Your task to perform on an android device: all mails in gmail Image 0: 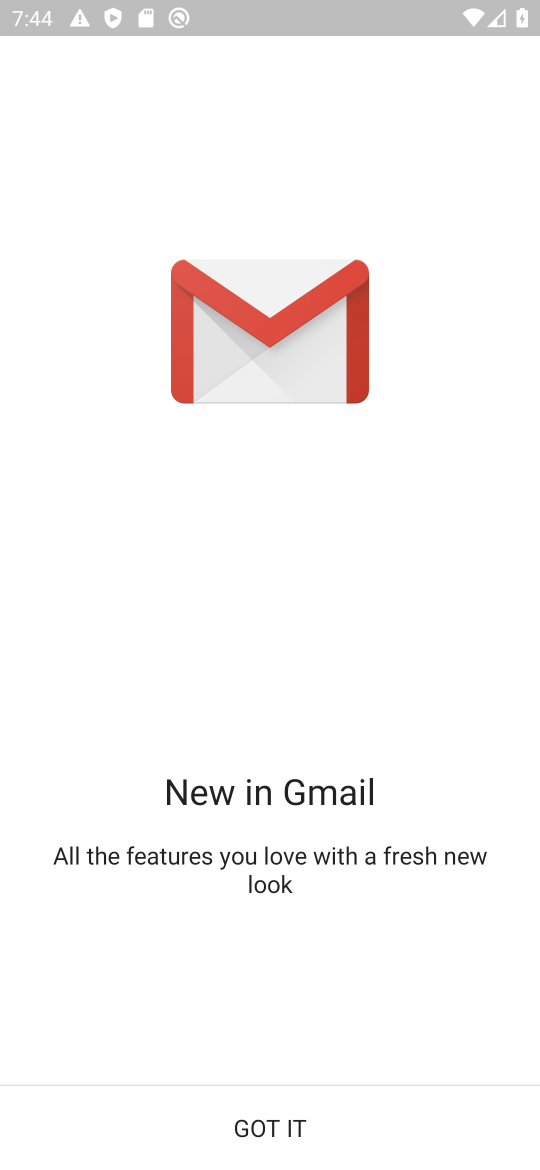
Step 0: click (279, 1101)
Your task to perform on an android device: all mails in gmail Image 1: 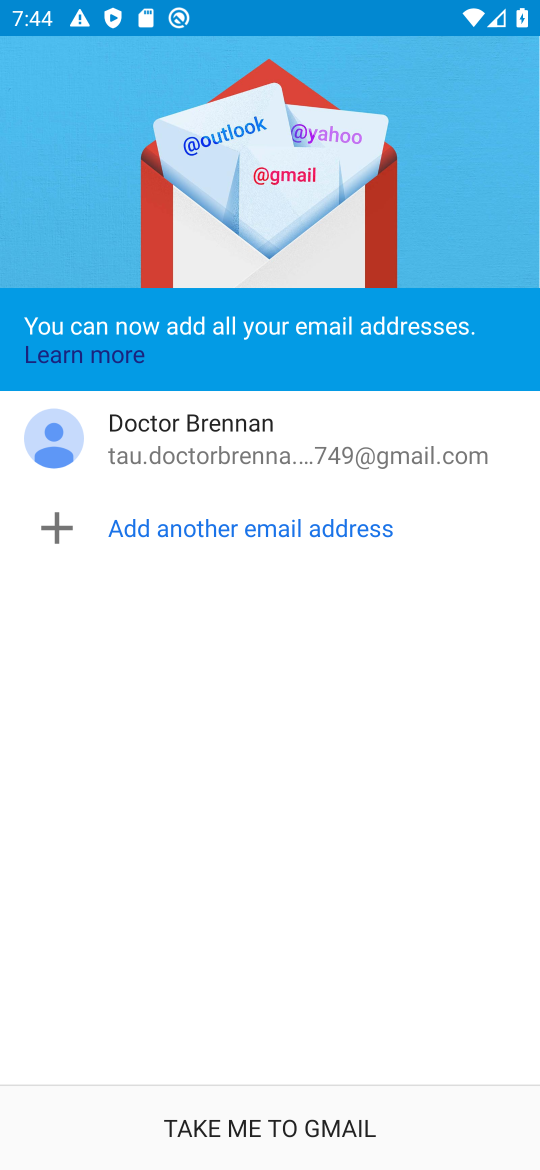
Step 1: click (219, 1131)
Your task to perform on an android device: all mails in gmail Image 2: 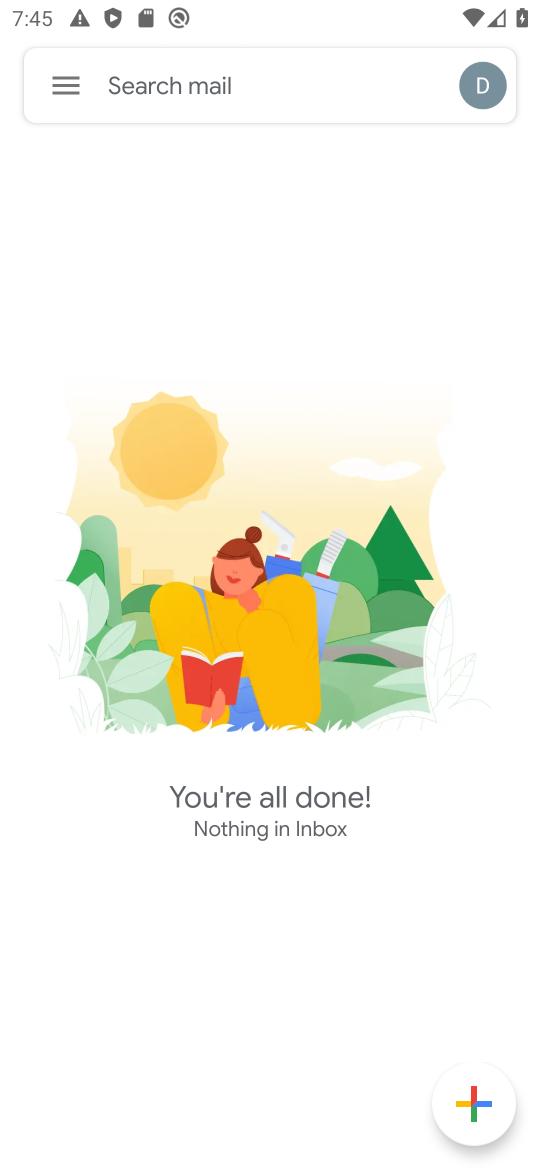
Step 2: click (66, 61)
Your task to perform on an android device: all mails in gmail Image 3: 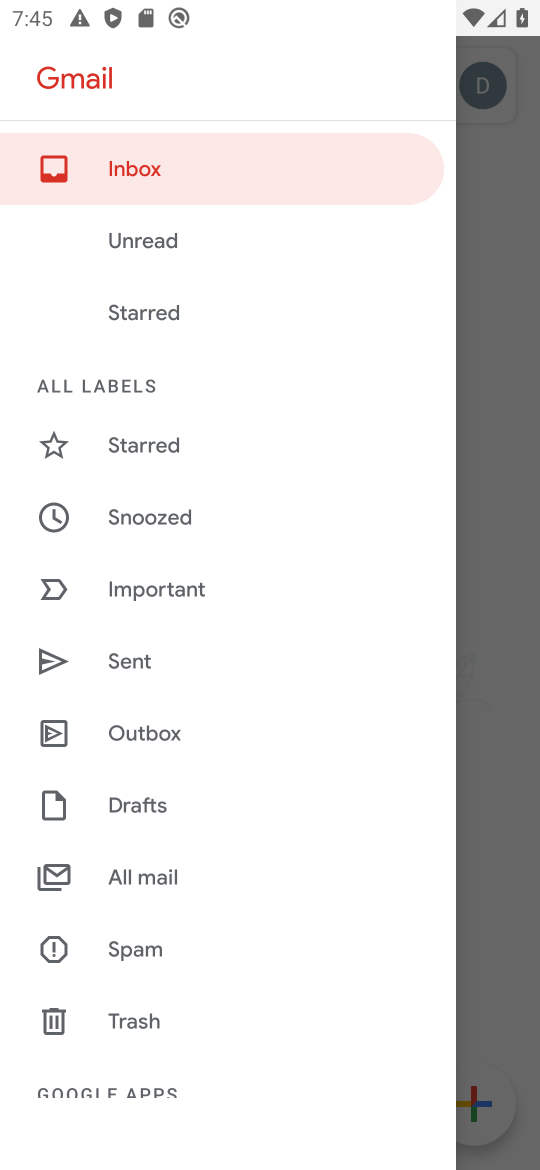
Step 3: click (160, 885)
Your task to perform on an android device: all mails in gmail Image 4: 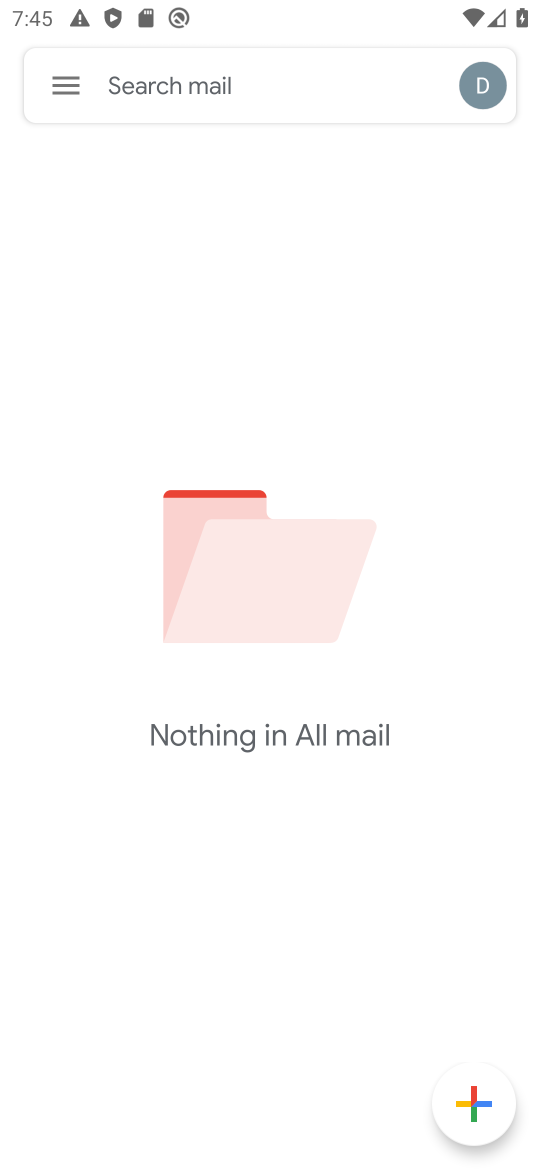
Step 4: task complete